Your task to perform on an android device: Go to wifi settings Image 0: 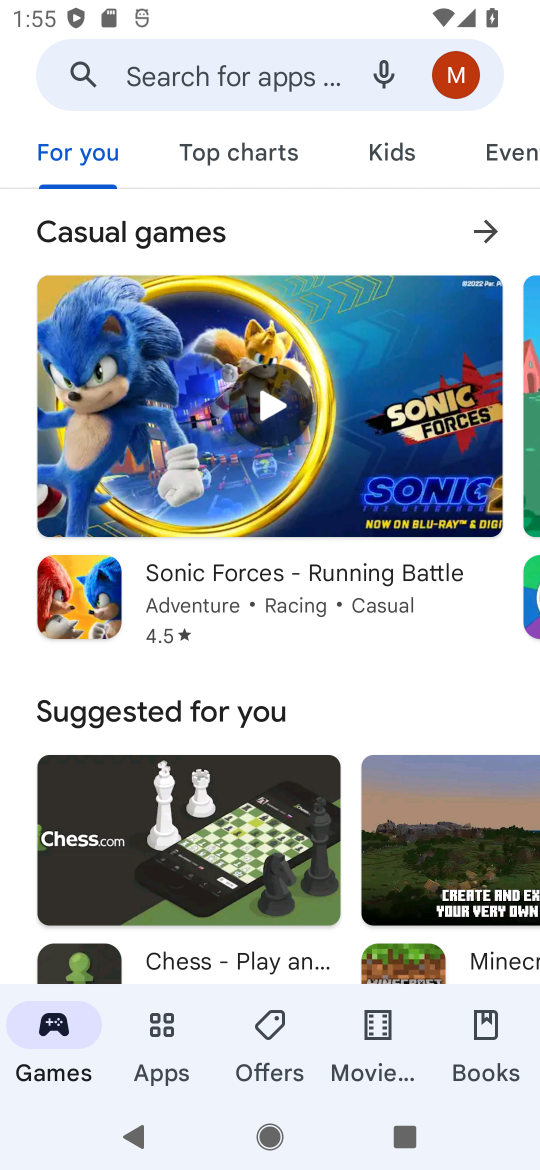
Step 0: press home button
Your task to perform on an android device: Go to wifi settings Image 1: 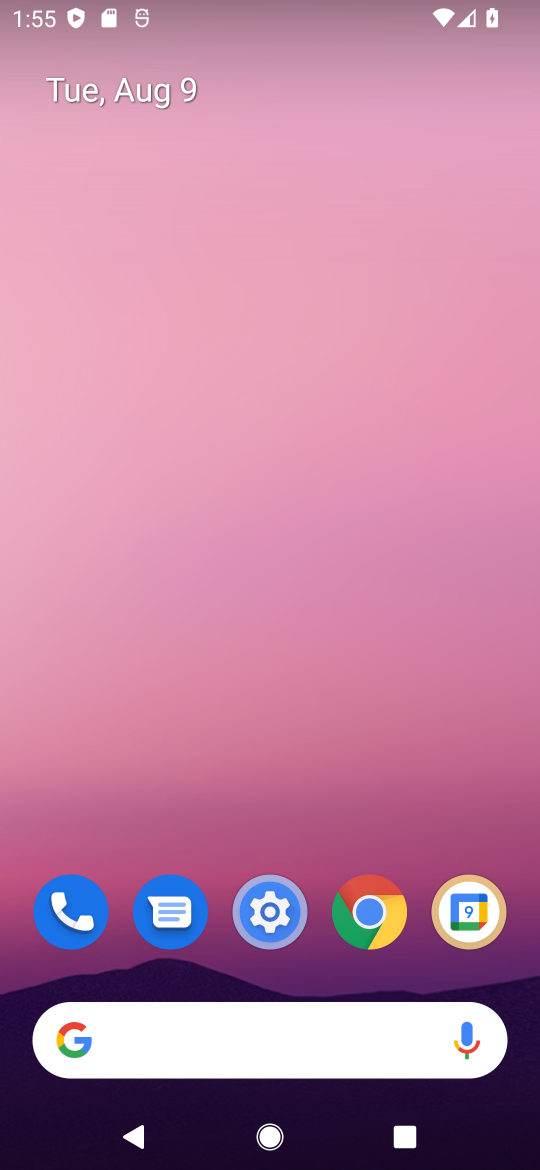
Step 1: click (271, 909)
Your task to perform on an android device: Go to wifi settings Image 2: 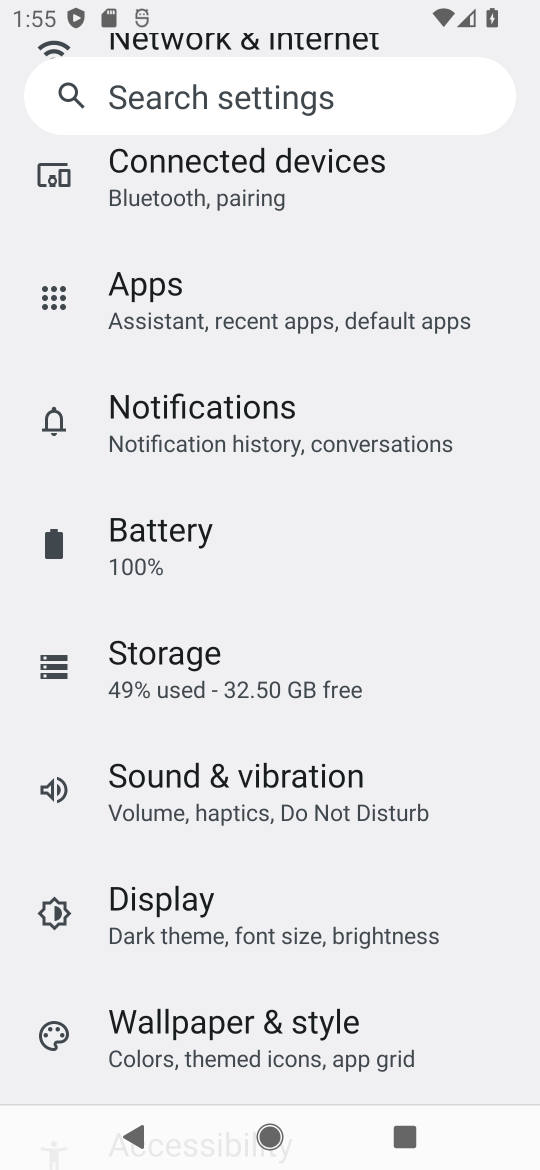
Step 2: drag from (310, 232) to (250, 618)
Your task to perform on an android device: Go to wifi settings Image 3: 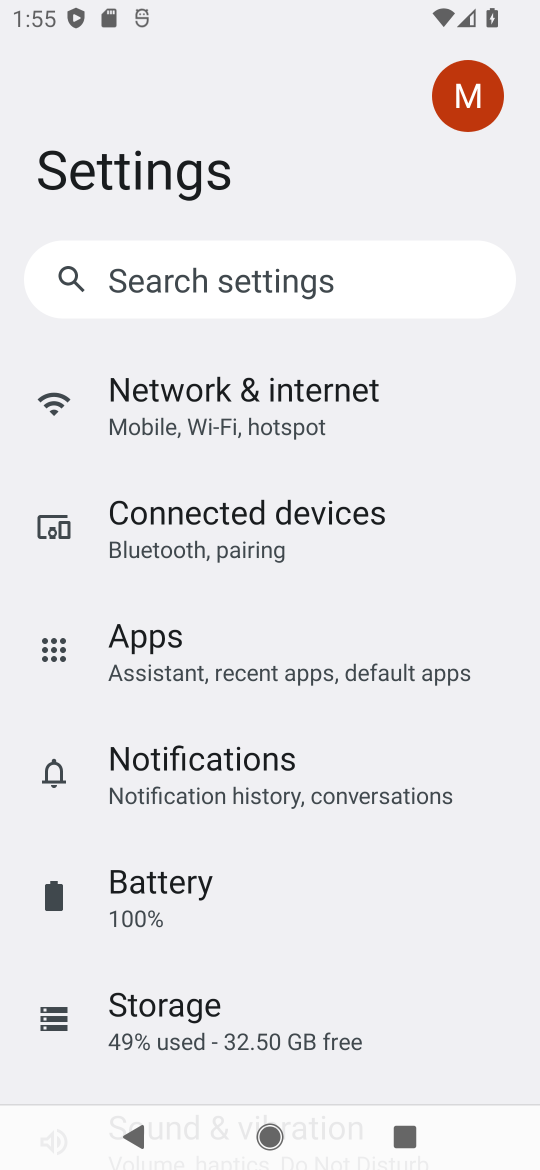
Step 3: click (234, 389)
Your task to perform on an android device: Go to wifi settings Image 4: 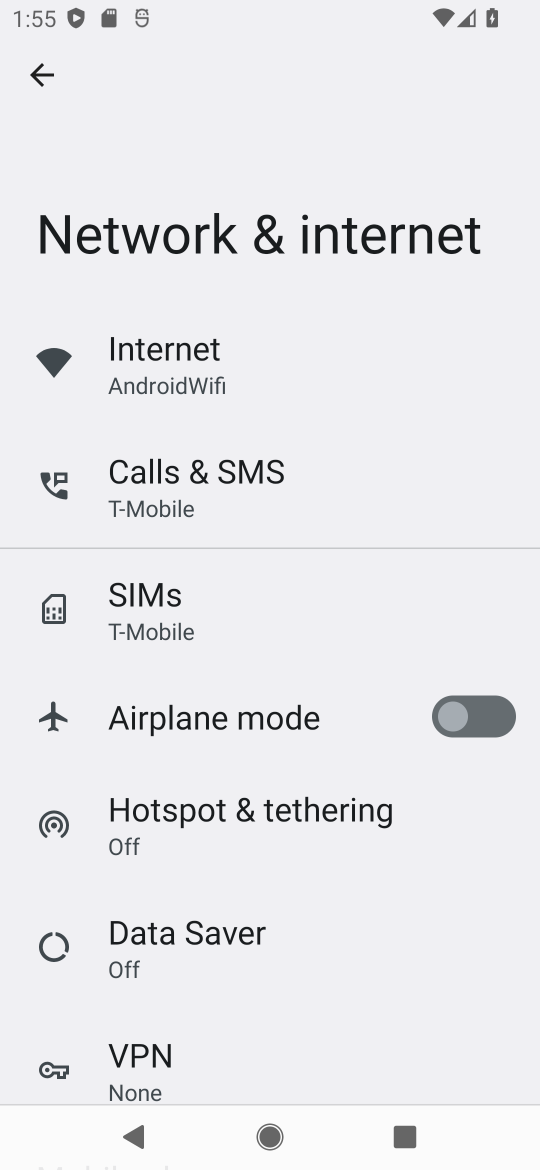
Step 4: click (163, 349)
Your task to perform on an android device: Go to wifi settings Image 5: 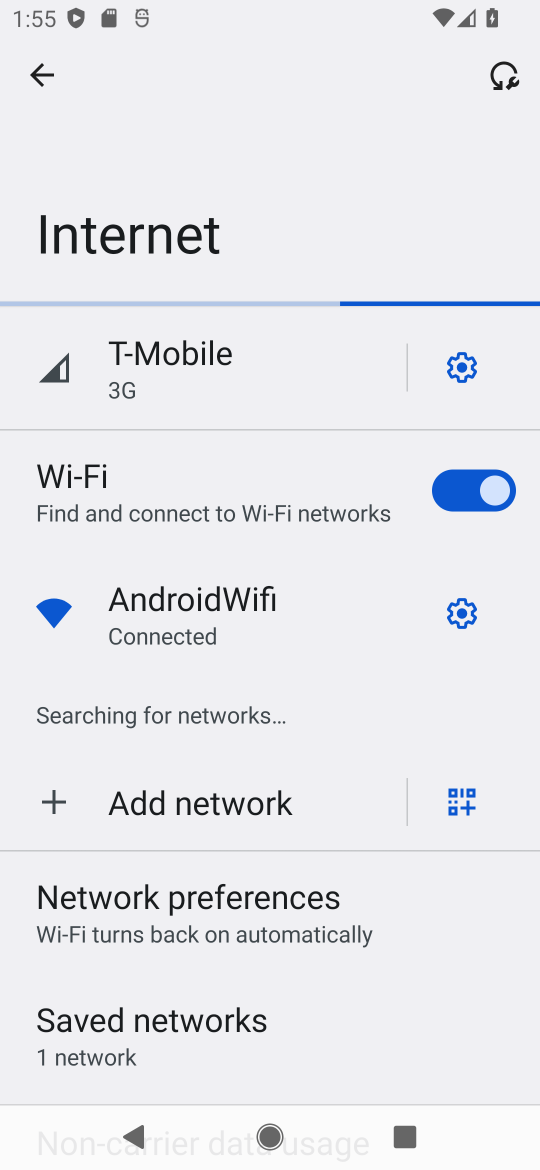
Step 5: task complete